Your task to perform on an android device: How much does a 3 bedroom apartment rent for in Philadelphia? Image 0: 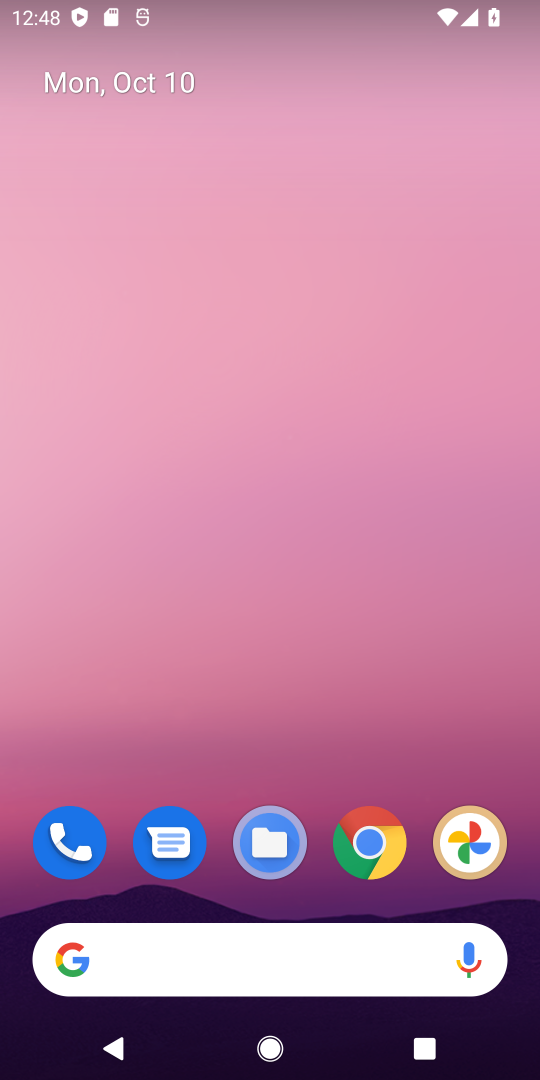
Step 0: click (388, 860)
Your task to perform on an android device: How much does a 3 bedroom apartment rent for in Philadelphia? Image 1: 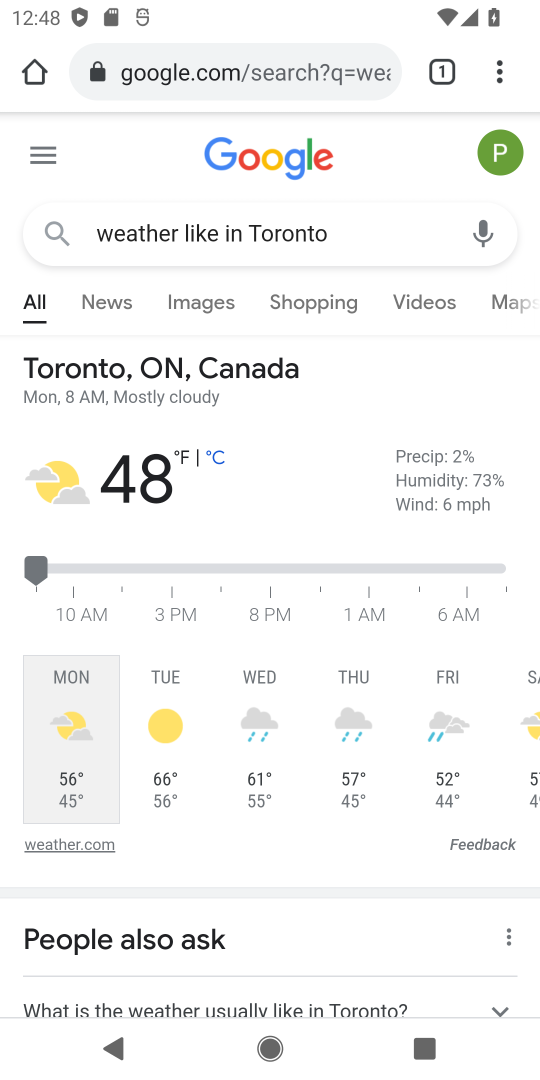
Step 1: click (166, 60)
Your task to perform on an android device: How much does a 3 bedroom apartment rent for in Philadelphia? Image 2: 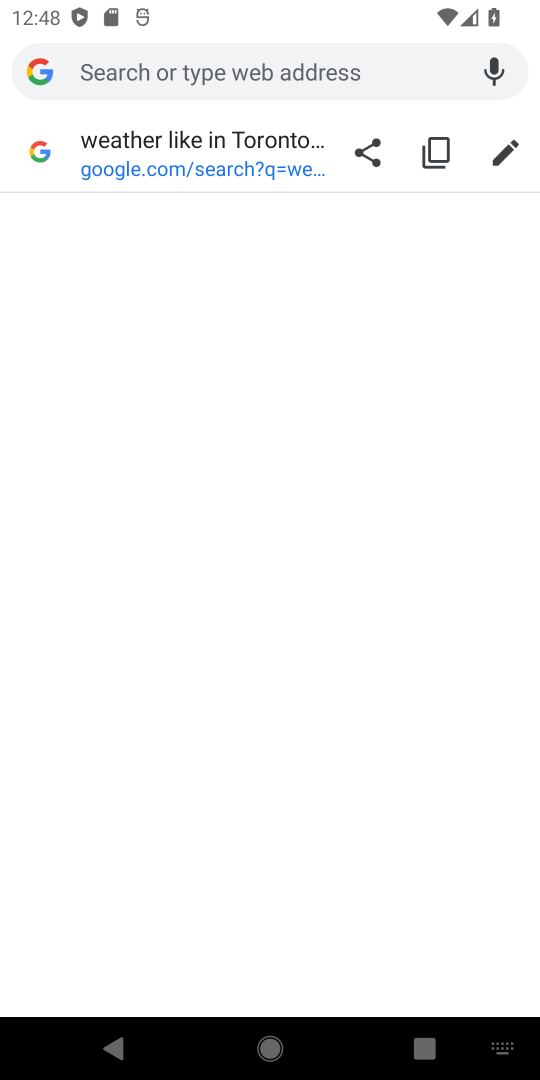
Step 2: type "3 bedroom apartment rent in Philadelphia"
Your task to perform on an android device: How much does a 3 bedroom apartment rent for in Philadelphia? Image 3: 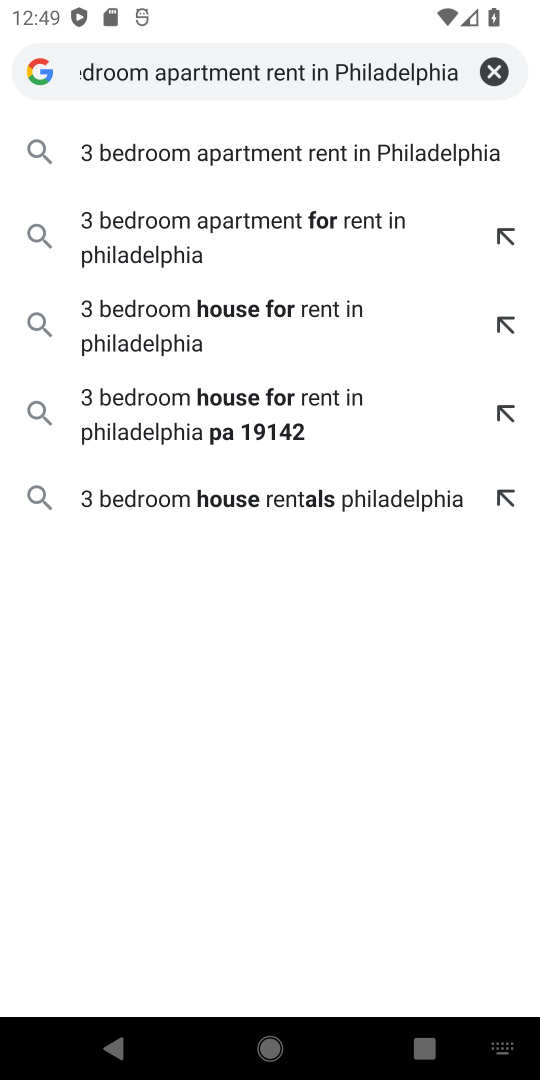
Step 3: press enter
Your task to perform on an android device: How much does a 3 bedroom apartment rent for in Philadelphia? Image 4: 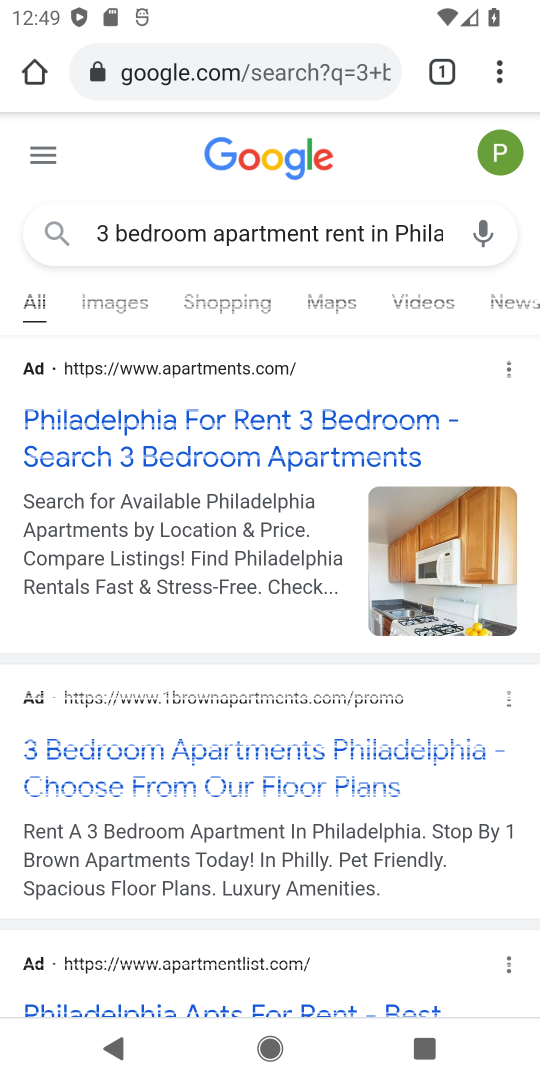
Step 4: click (237, 447)
Your task to perform on an android device: How much does a 3 bedroom apartment rent for in Philadelphia? Image 5: 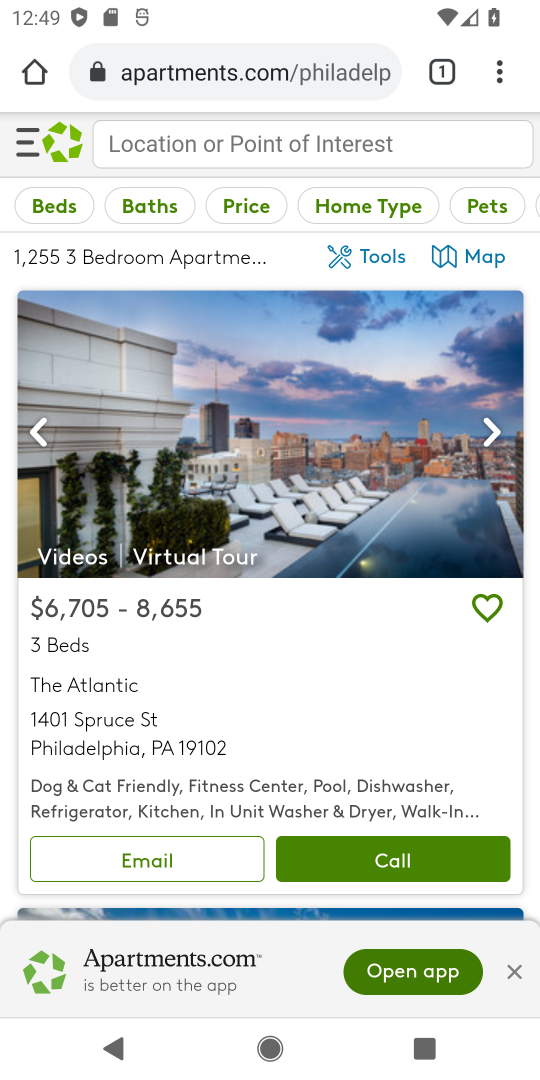
Step 5: drag from (281, 675) to (277, 207)
Your task to perform on an android device: How much does a 3 bedroom apartment rent for in Philadelphia? Image 6: 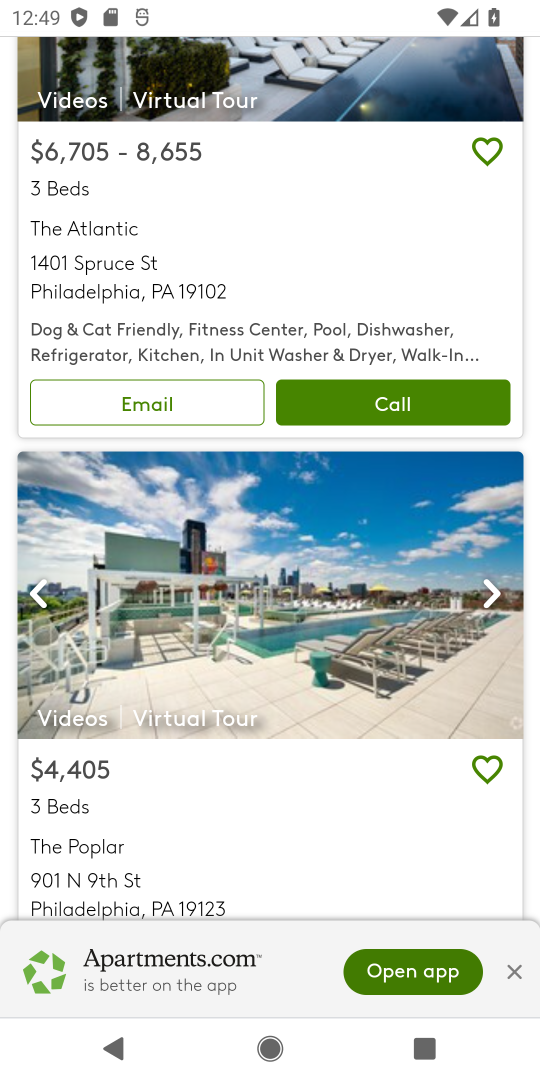
Step 6: drag from (300, 614) to (311, 181)
Your task to perform on an android device: How much does a 3 bedroom apartment rent for in Philadelphia? Image 7: 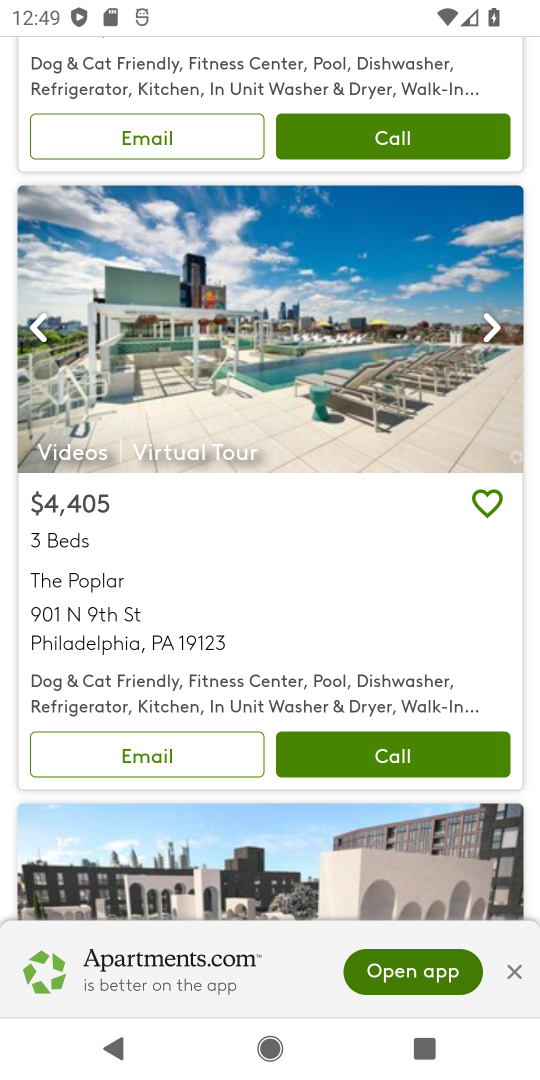
Step 7: drag from (325, 729) to (296, 222)
Your task to perform on an android device: How much does a 3 bedroom apartment rent for in Philadelphia? Image 8: 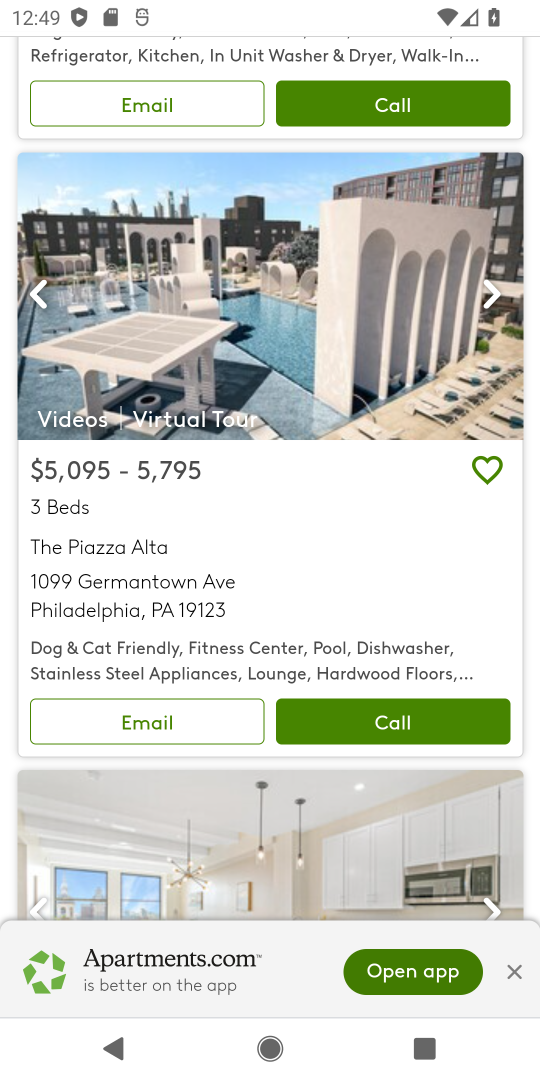
Step 8: drag from (318, 796) to (291, 240)
Your task to perform on an android device: How much does a 3 bedroom apartment rent for in Philadelphia? Image 9: 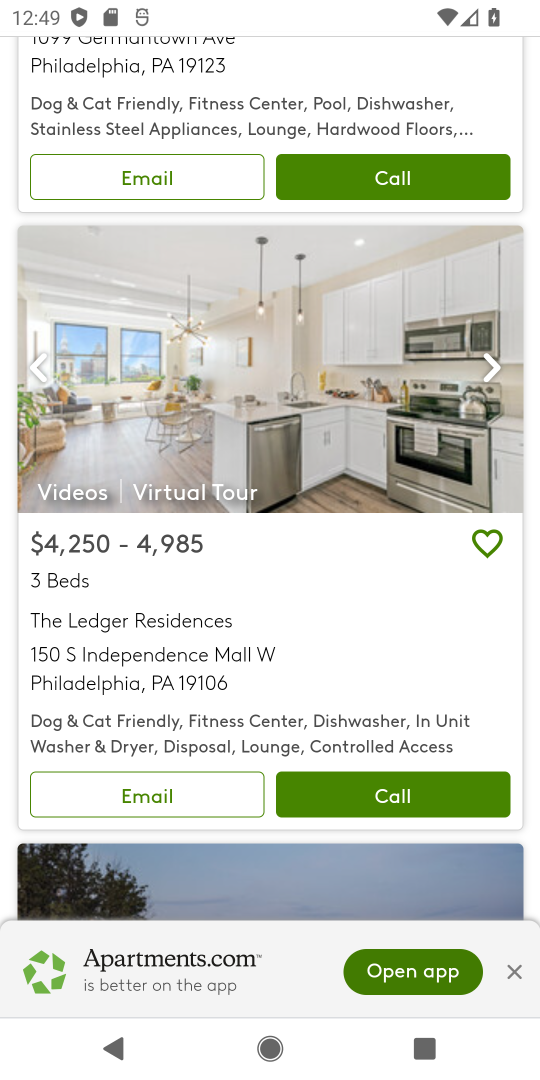
Step 9: drag from (339, 587) to (314, 179)
Your task to perform on an android device: How much does a 3 bedroom apartment rent for in Philadelphia? Image 10: 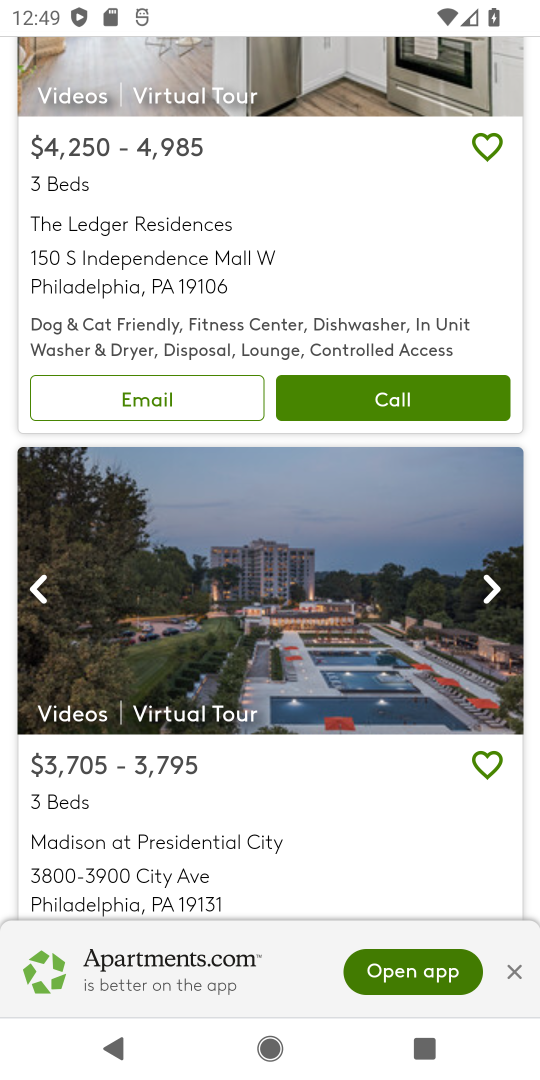
Step 10: drag from (290, 683) to (294, 206)
Your task to perform on an android device: How much does a 3 bedroom apartment rent for in Philadelphia? Image 11: 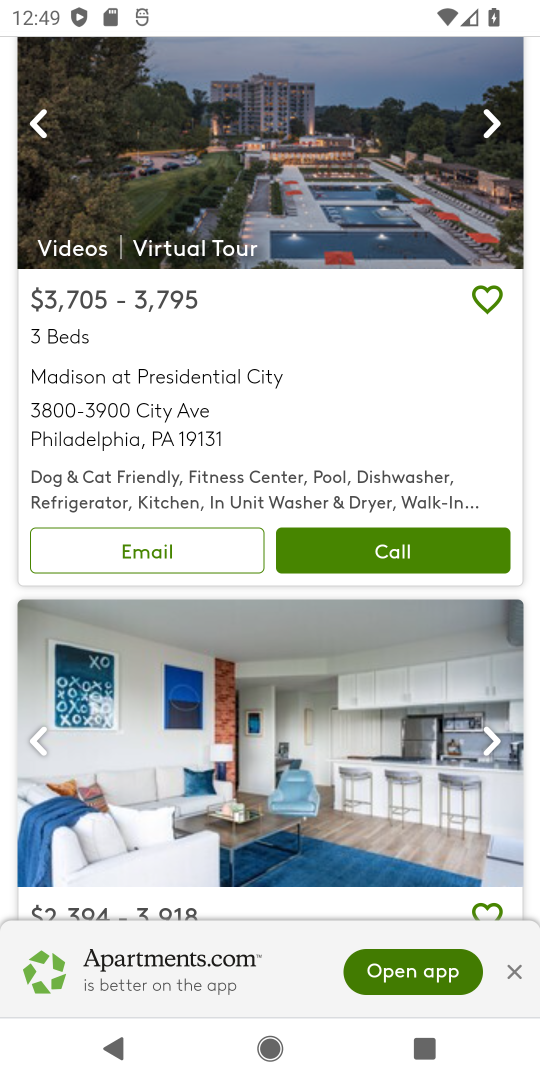
Step 11: drag from (312, 725) to (347, 396)
Your task to perform on an android device: How much does a 3 bedroom apartment rent for in Philadelphia? Image 12: 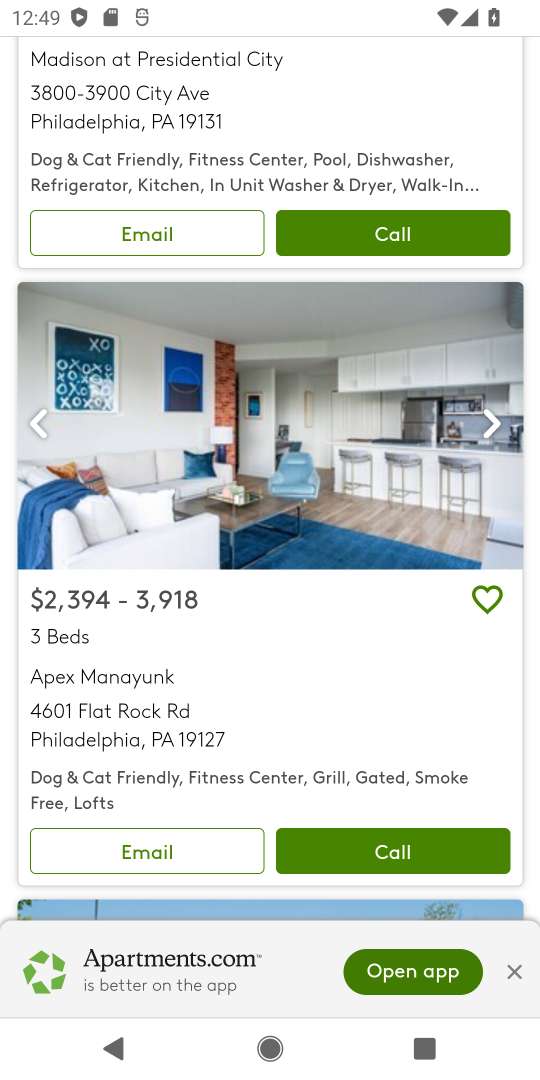
Step 12: drag from (298, 452) to (269, 130)
Your task to perform on an android device: How much does a 3 bedroom apartment rent for in Philadelphia? Image 13: 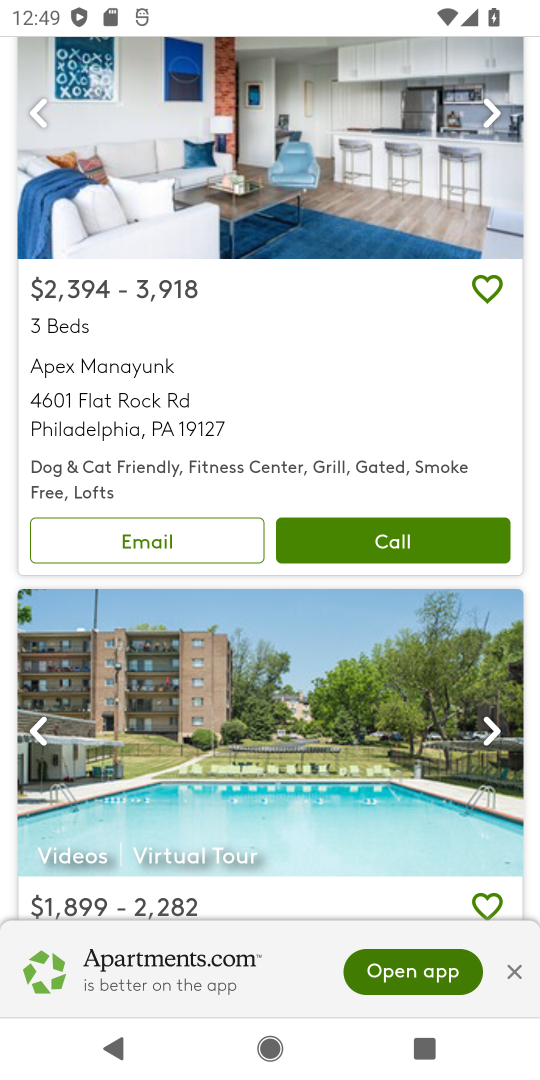
Step 13: click (253, 324)
Your task to perform on an android device: How much does a 3 bedroom apartment rent for in Philadelphia? Image 14: 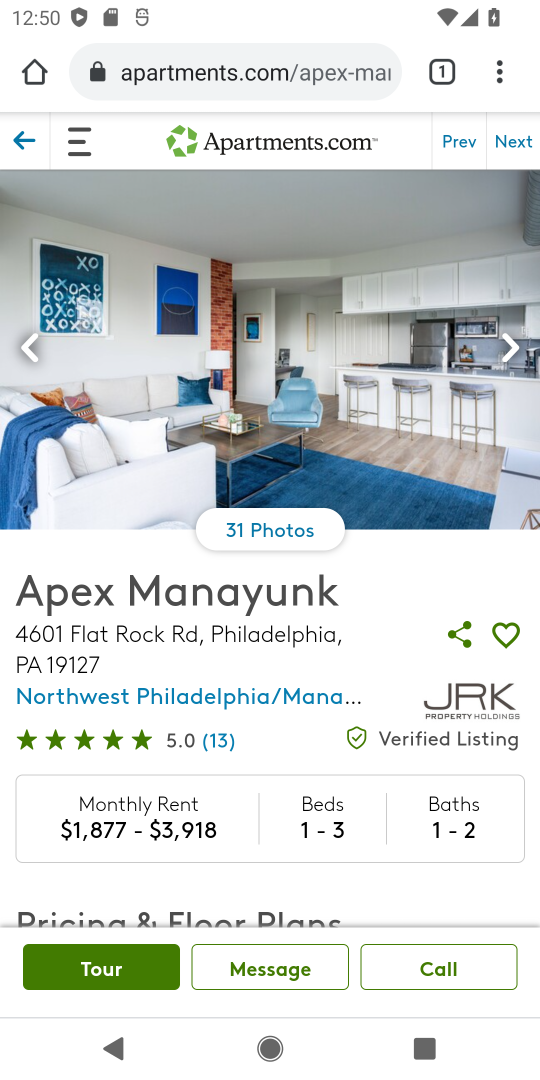
Step 14: task complete